Your task to perform on an android device: change text size in settings app Image 0: 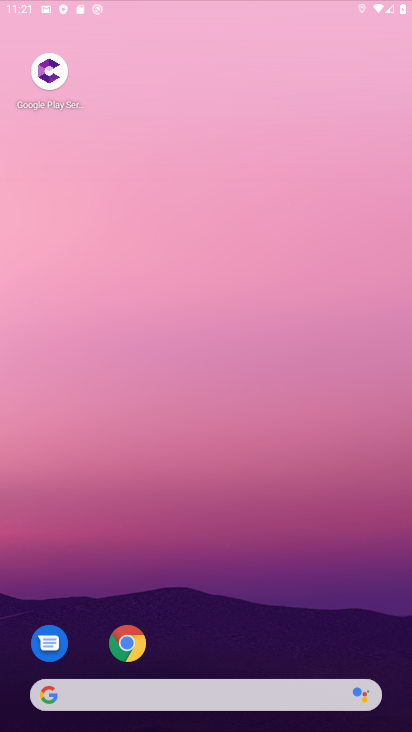
Step 0: click (151, 1)
Your task to perform on an android device: change text size in settings app Image 1: 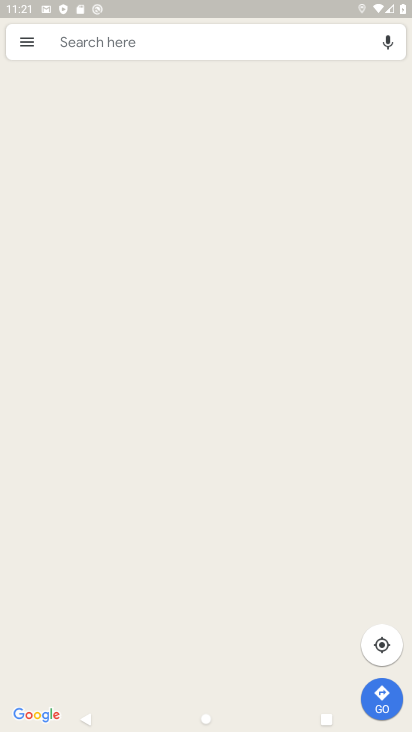
Step 1: press home button
Your task to perform on an android device: change text size in settings app Image 2: 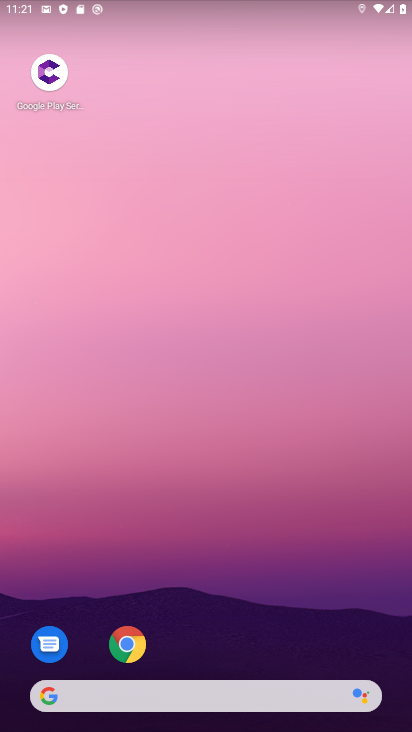
Step 2: drag from (223, 614) to (194, 24)
Your task to perform on an android device: change text size in settings app Image 3: 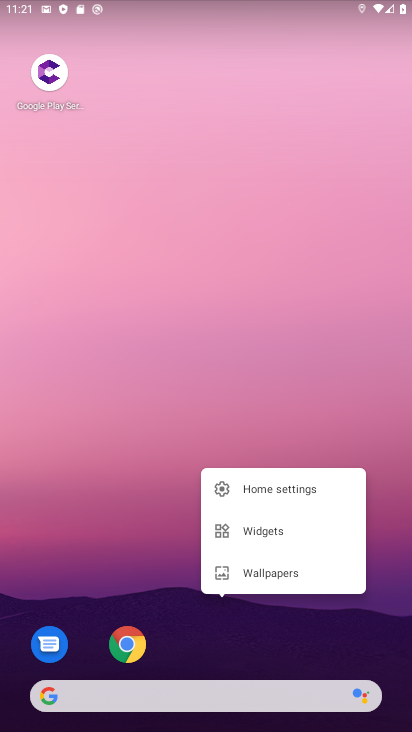
Step 3: click (244, 257)
Your task to perform on an android device: change text size in settings app Image 4: 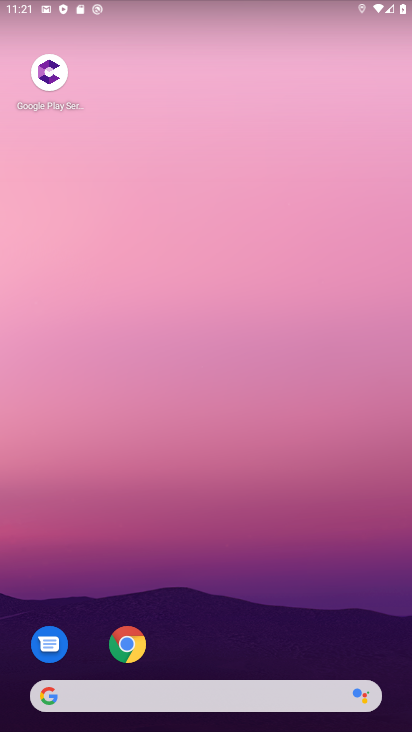
Step 4: drag from (241, 546) to (193, 114)
Your task to perform on an android device: change text size in settings app Image 5: 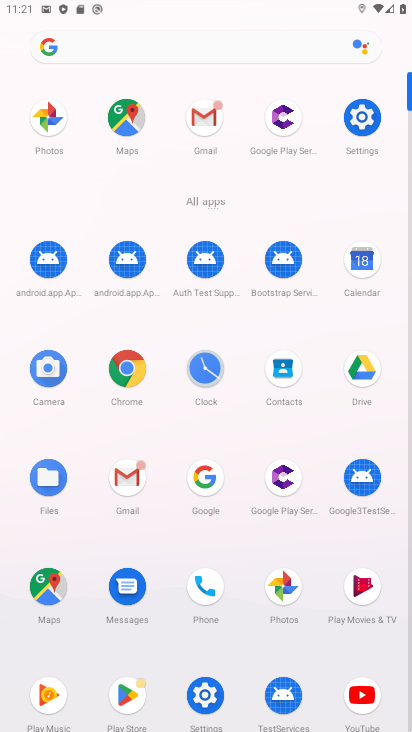
Step 5: click (358, 119)
Your task to perform on an android device: change text size in settings app Image 6: 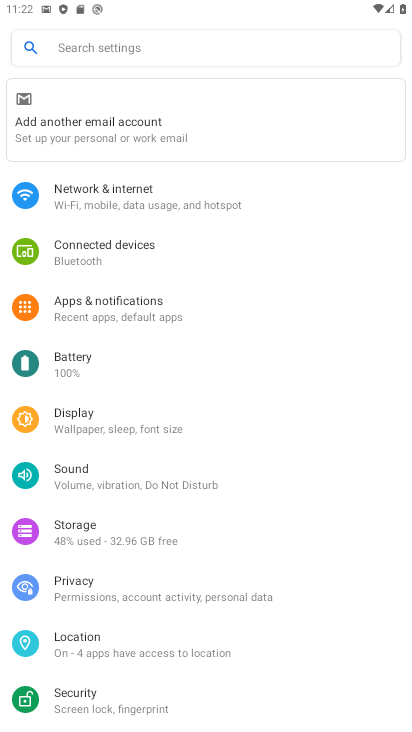
Step 6: click (70, 421)
Your task to perform on an android device: change text size in settings app Image 7: 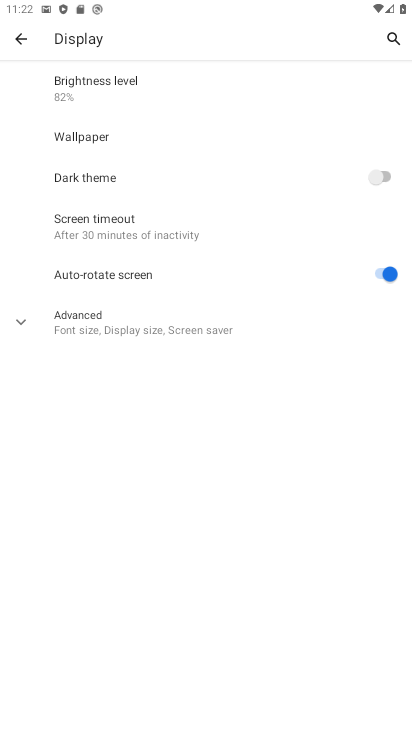
Step 7: click (92, 322)
Your task to perform on an android device: change text size in settings app Image 8: 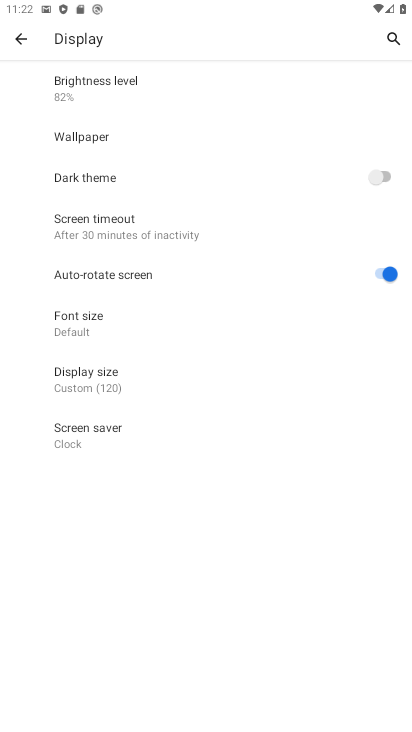
Step 8: click (92, 322)
Your task to perform on an android device: change text size in settings app Image 9: 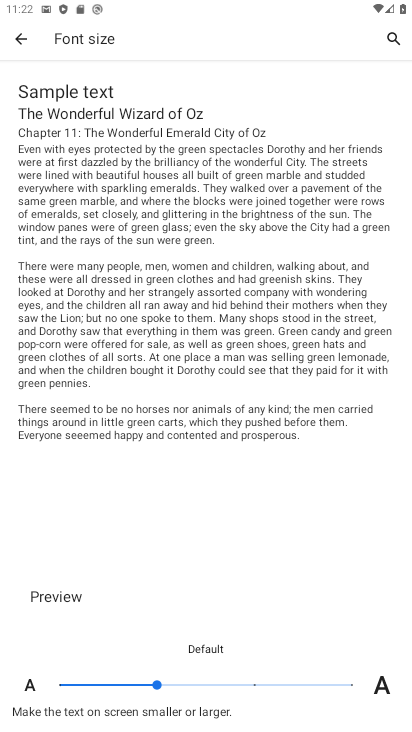
Step 9: click (234, 679)
Your task to perform on an android device: change text size in settings app Image 10: 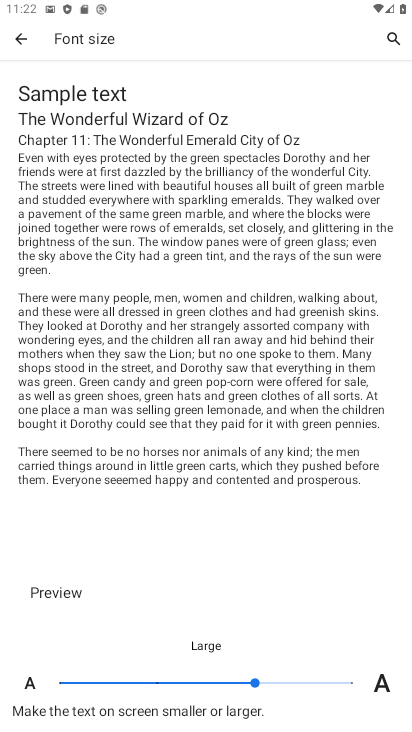
Step 10: task complete